Your task to perform on an android device: Open location settings Image 0: 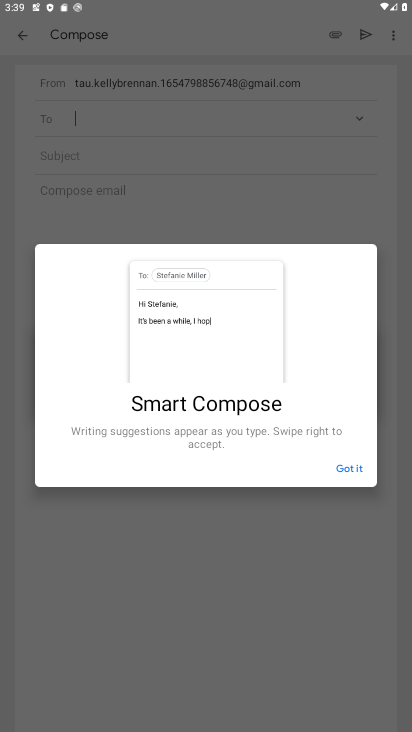
Step 0: press home button
Your task to perform on an android device: Open location settings Image 1: 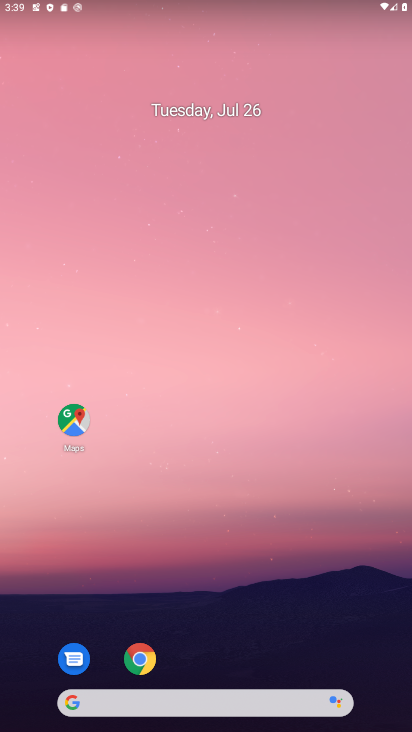
Step 1: drag from (245, 626) to (199, 154)
Your task to perform on an android device: Open location settings Image 2: 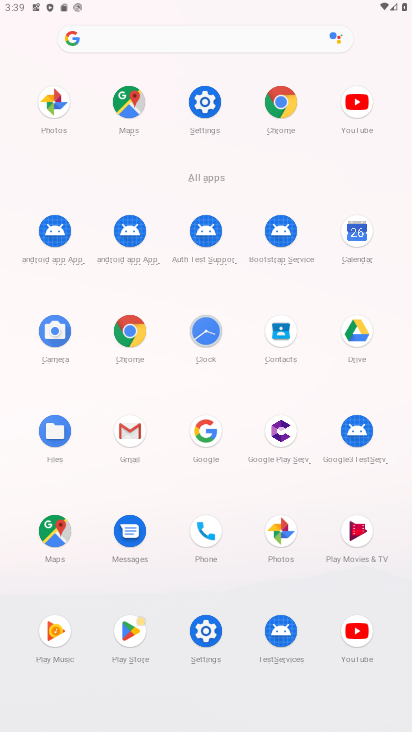
Step 2: click (211, 631)
Your task to perform on an android device: Open location settings Image 3: 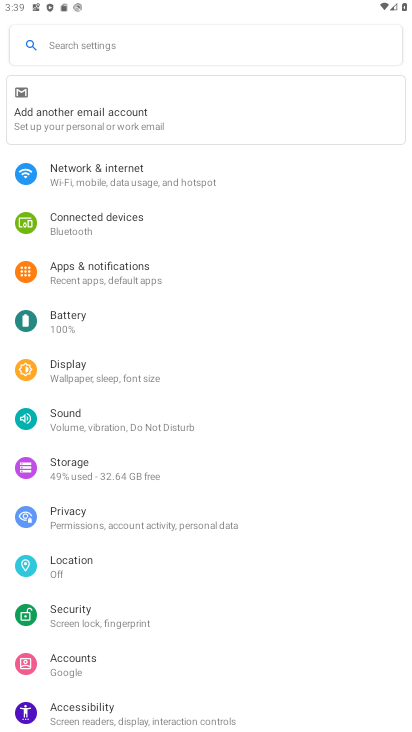
Step 3: click (104, 556)
Your task to perform on an android device: Open location settings Image 4: 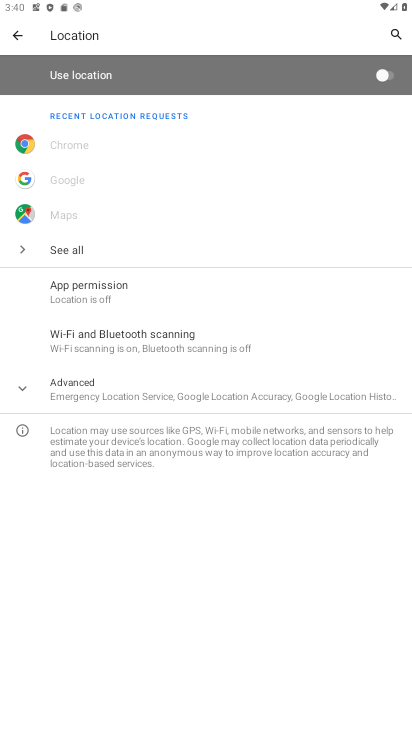
Step 4: task complete